Your task to perform on an android device: turn off airplane mode Image 0: 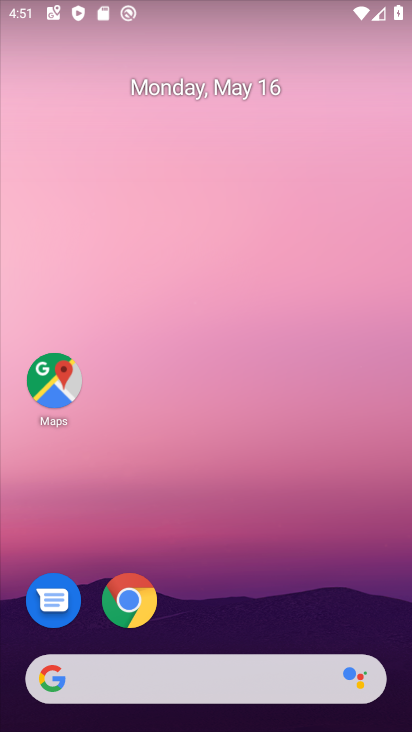
Step 0: drag from (217, 641) to (193, 56)
Your task to perform on an android device: turn off airplane mode Image 1: 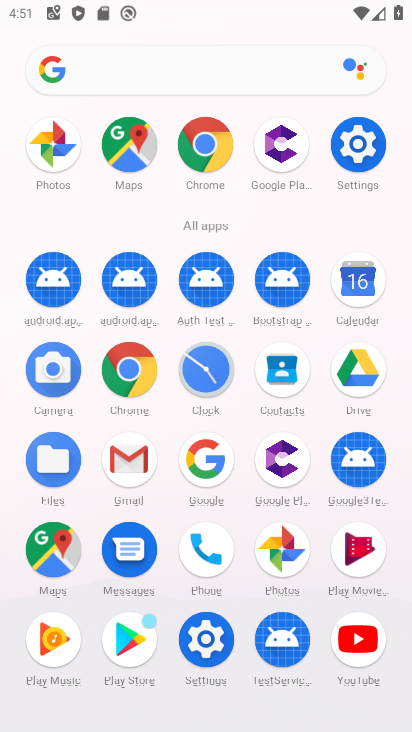
Step 1: click (341, 157)
Your task to perform on an android device: turn off airplane mode Image 2: 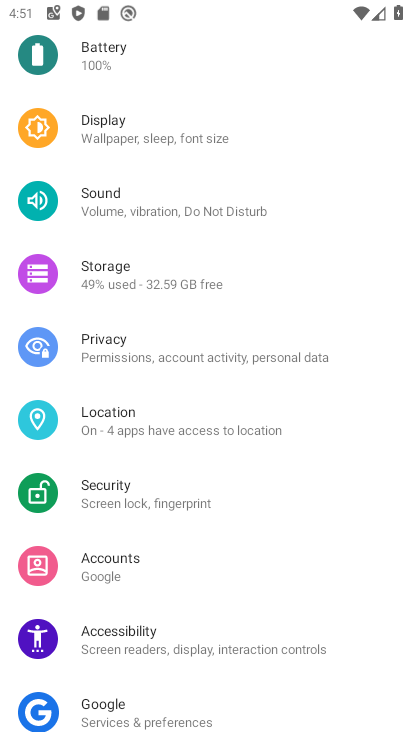
Step 2: drag from (220, 155) to (228, 603)
Your task to perform on an android device: turn off airplane mode Image 3: 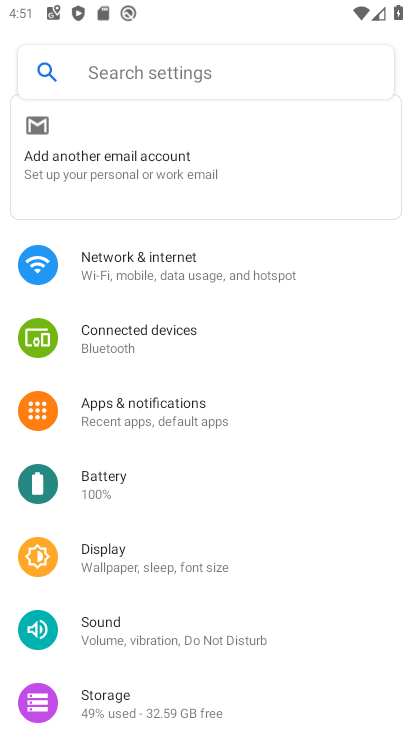
Step 3: click (183, 253)
Your task to perform on an android device: turn off airplane mode Image 4: 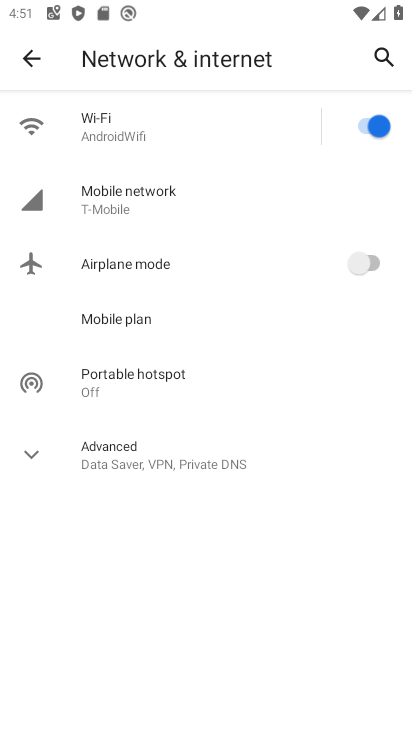
Step 4: task complete